Your task to perform on an android device: Search for Italian restaurants on Maps Image 0: 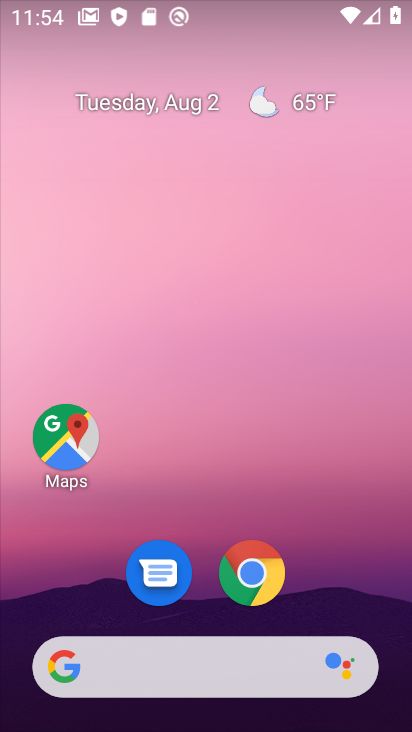
Step 0: click (397, 314)
Your task to perform on an android device: Search for Italian restaurants on Maps Image 1: 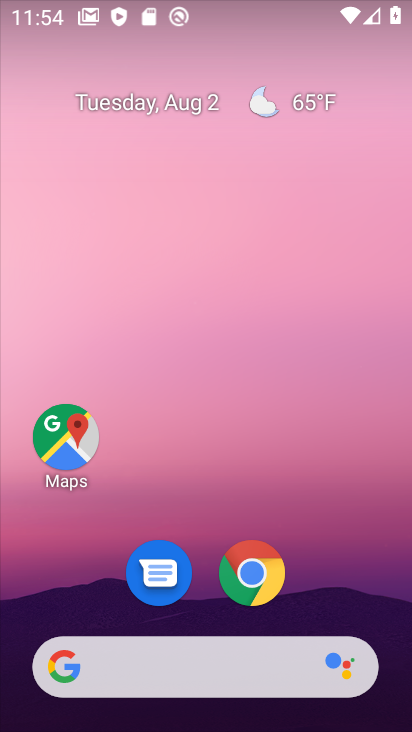
Step 1: drag from (254, 474) to (307, 189)
Your task to perform on an android device: Search for Italian restaurants on Maps Image 2: 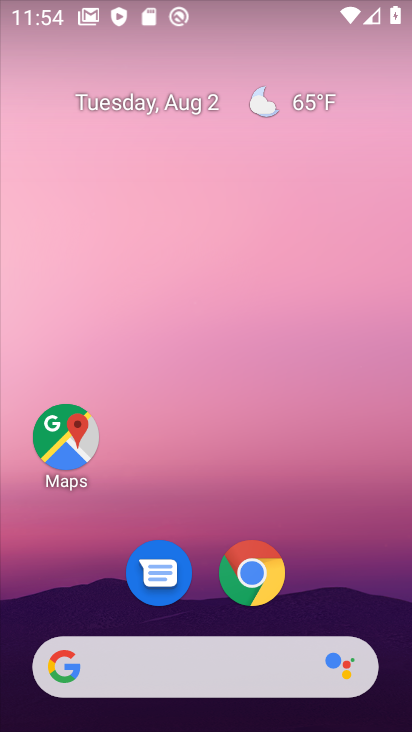
Step 2: drag from (218, 592) to (289, 46)
Your task to perform on an android device: Search for Italian restaurants on Maps Image 3: 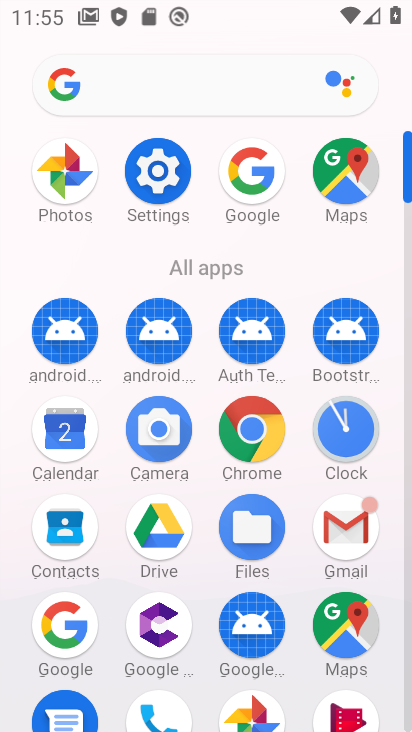
Step 3: click (340, 165)
Your task to perform on an android device: Search for Italian restaurants on Maps Image 4: 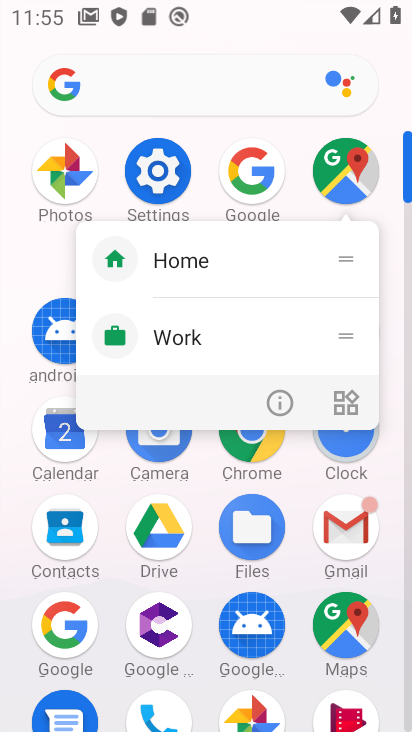
Step 4: click (273, 389)
Your task to perform on an android device: Search for Italian restaurants on Maps Image 5: 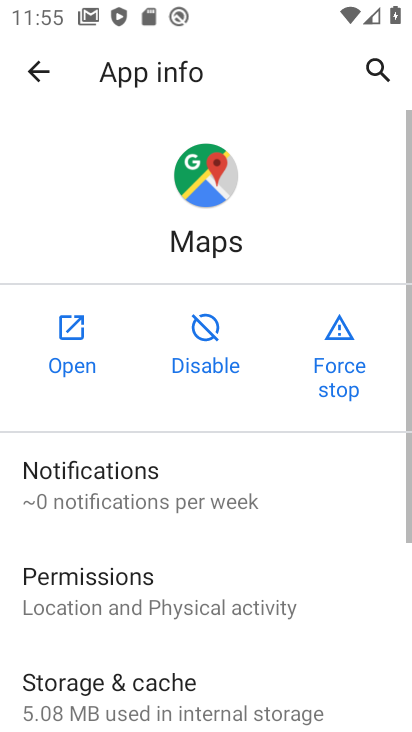
Step 5: click (75, 356)
Your task to perform on an android device: Search for Italian restaurants on Maps Image 6: 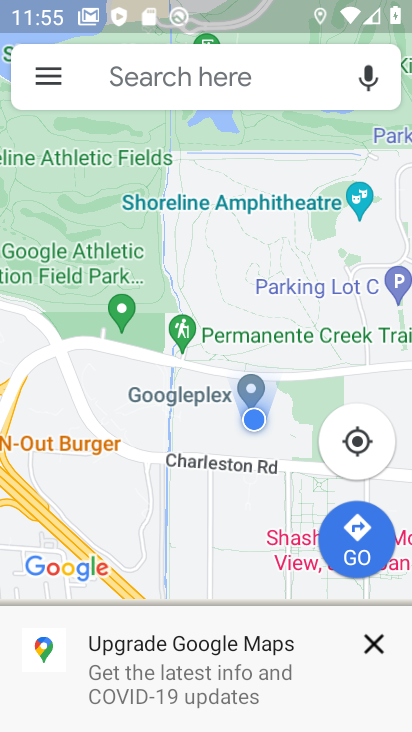
Step 6: click (151, 86)
Your task to perform on an android device: Search for Italian restaurants on Maps Image 7: 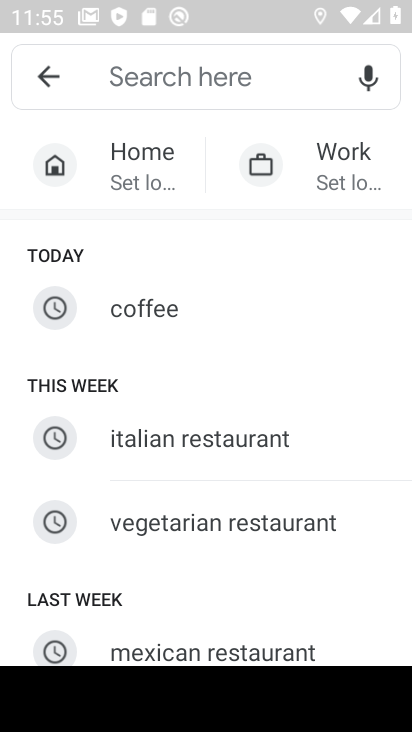
Step 7: click (137, 439)
Your task to perform on an android device: Search for Italian restaurants on Maps Image 8: 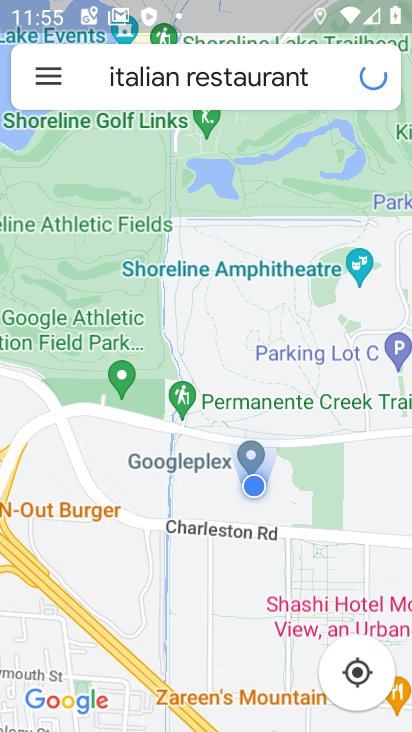
Step 8: task complete